Your task to perform on an android device: turn off notifications in google photos Image 0: 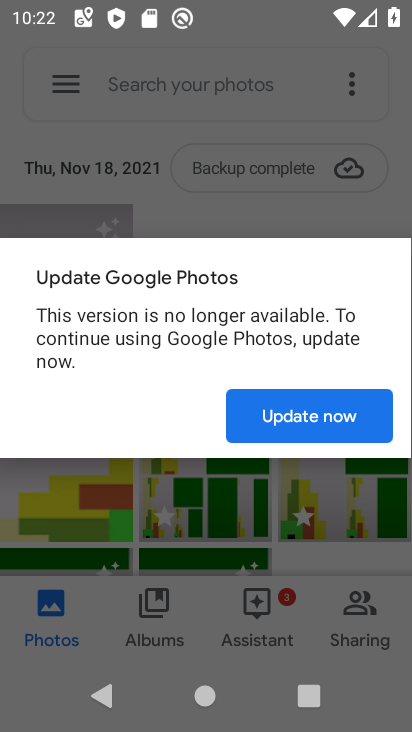
Step 0: press back button
Your task to perform on an android device: turn off notifications in google photos Image 1: 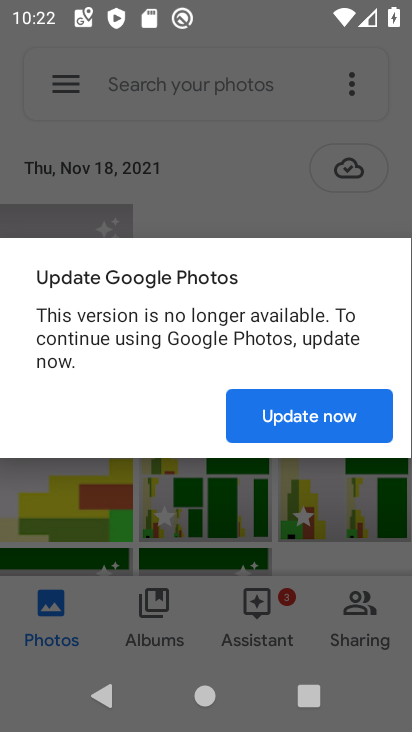
Step 1: press home button
Your task to perform on an android device: turn off notifications in google photos Image 2: 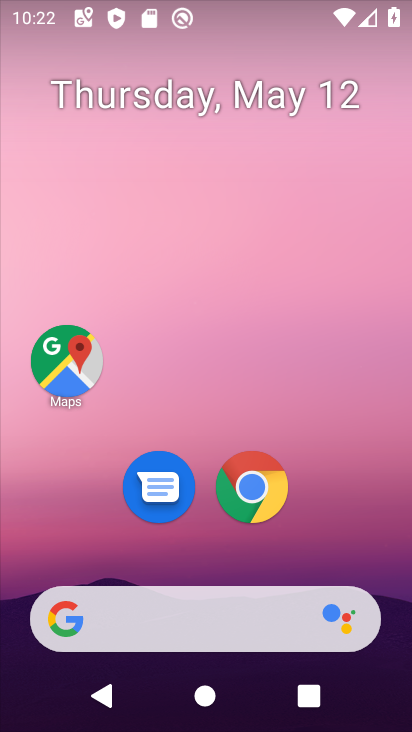
Step 2: drag from (63, 576) to (263, 257)
Your task to perform on an android device: turn off notifications in google photos Image 3: 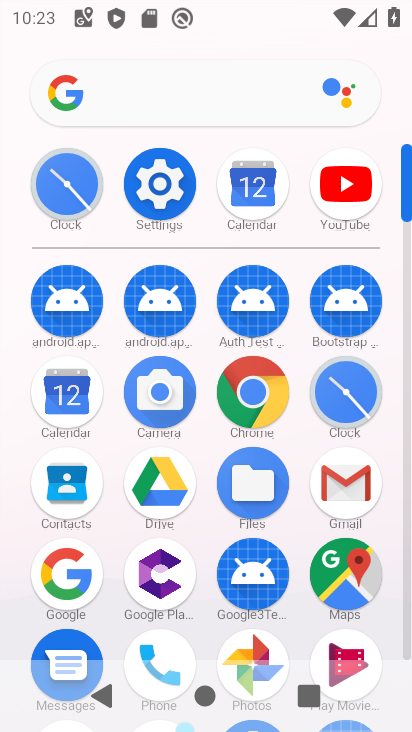
Step 3: click (173, 180)
Your task to perform on an android device: turn off notifications in google photos Image 4: 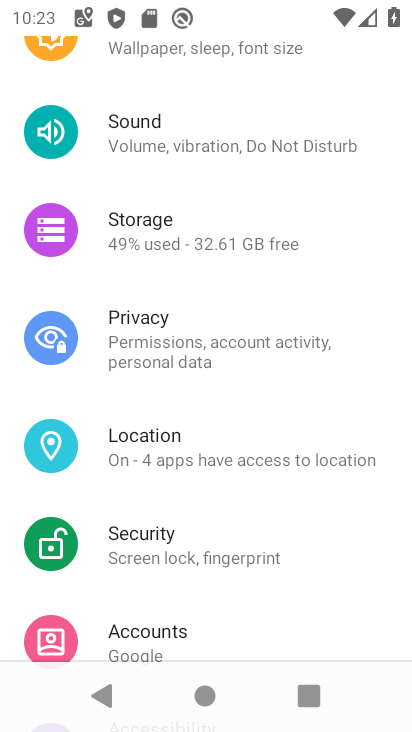
Step 4: press home button
Your task to perform on an android device: turn off notifications in google photos Image 5: 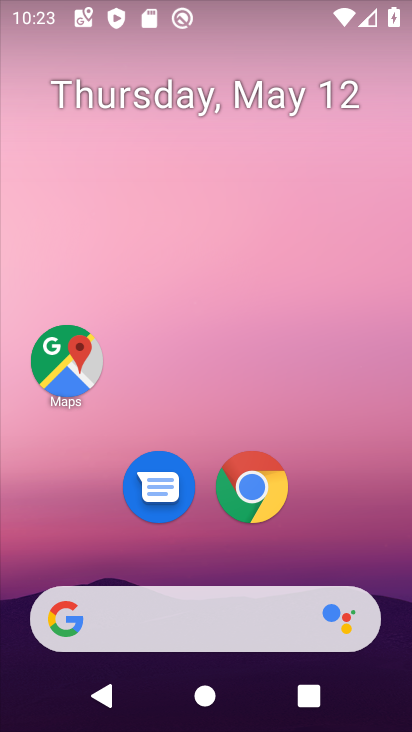
Step 5: drag from (54, 572) to (312, 90)
Your task to perform on an android device: turn off notifications in google photos Image 6: 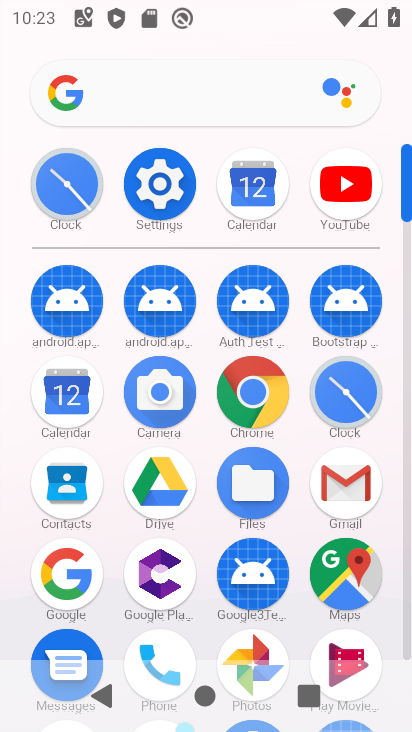
Step 6: click (252, 639)
Your task to perform on an android device: turn off notifications in google photos Image 7: 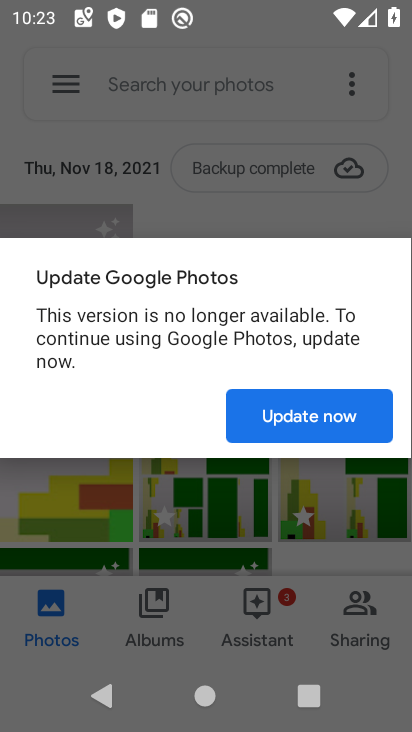
Step 7: click (309, 423)
Your task to perform on an android device: turn off notifications in google photos Image 8: 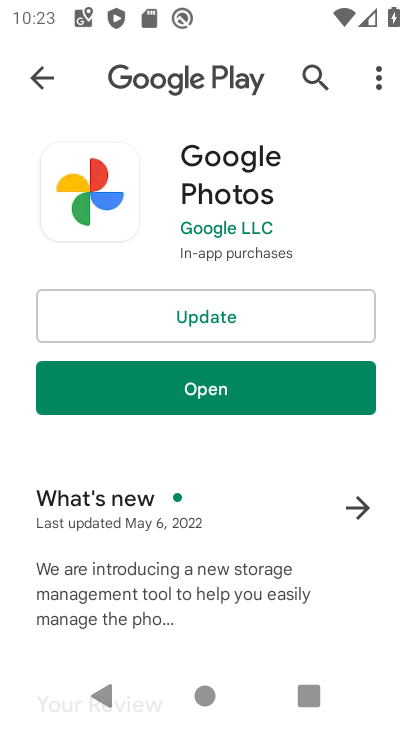
Step 8: click (276, 386)
Your task to perform on an android device: turn off notifications in google photos Image 9: 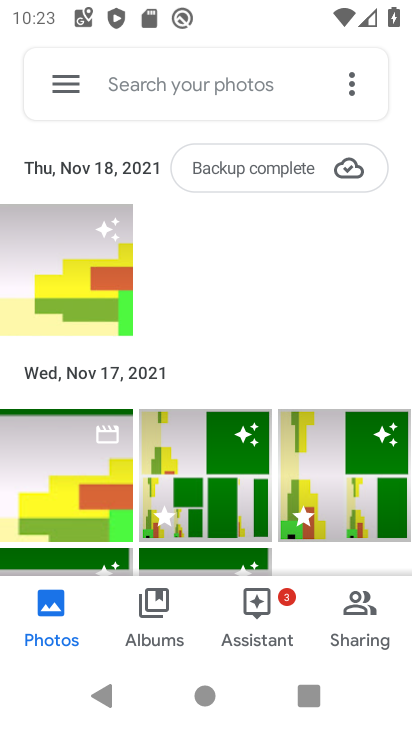
Step 9: click (77, 83)
Your task to perform on an android device: turn off notifications in google photos Image 10: 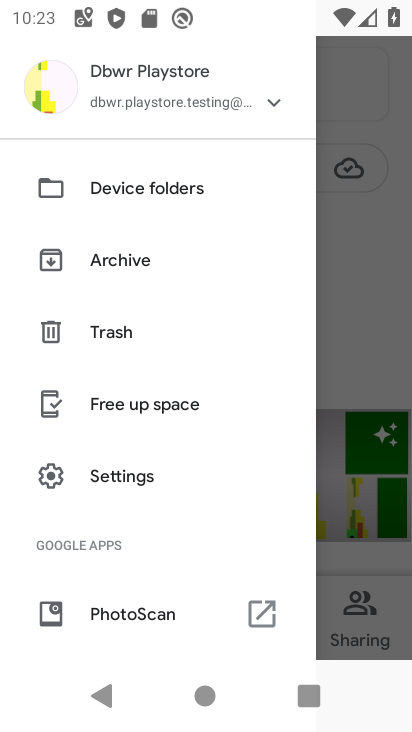
Step 10: drag from (85, 624) to (166, 262)
Your task to perform on an android device: turn off notifications in google photos Image 11: 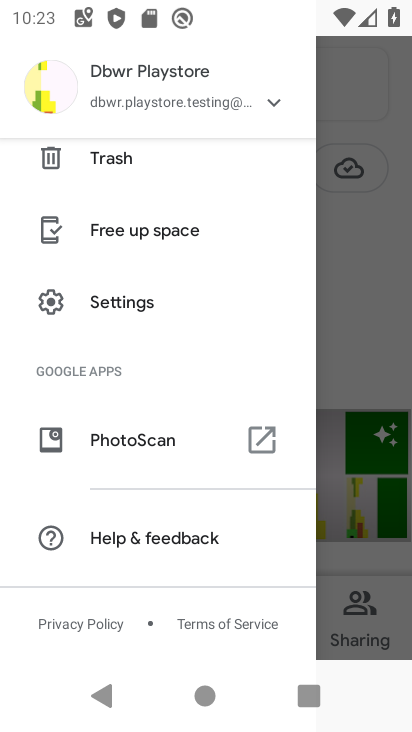
Step 11: click (148, 316)
Your task to perform on an android device: turn off notifications in google photos Image 12: 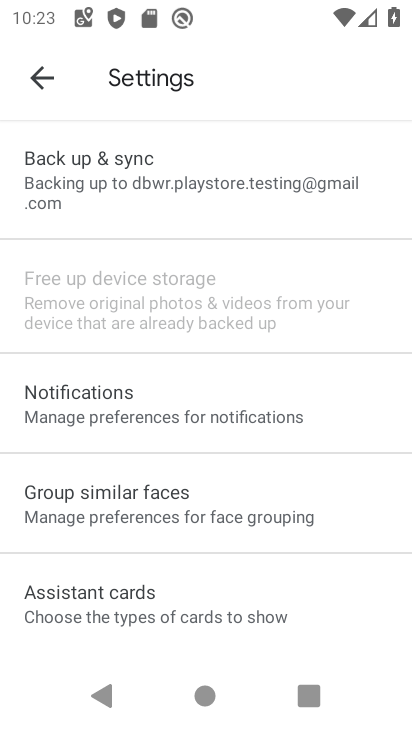
Step 12: click (148, 427)
Your task to perform on an android device: turn off notifications in google photos Image 13: 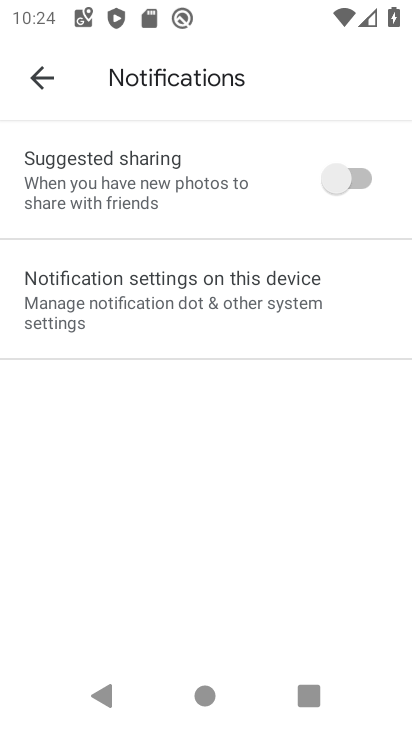
Step 13: click (318, 304)
Your task to perform on an android device: turn off notifications in google photos Image 14: 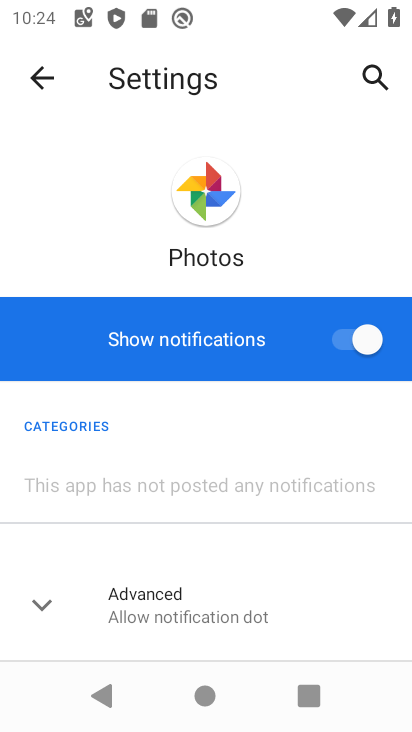
Step 14: click (367, 347)
Your task to perform on an android device: turn off notifications in google photos Image 15: 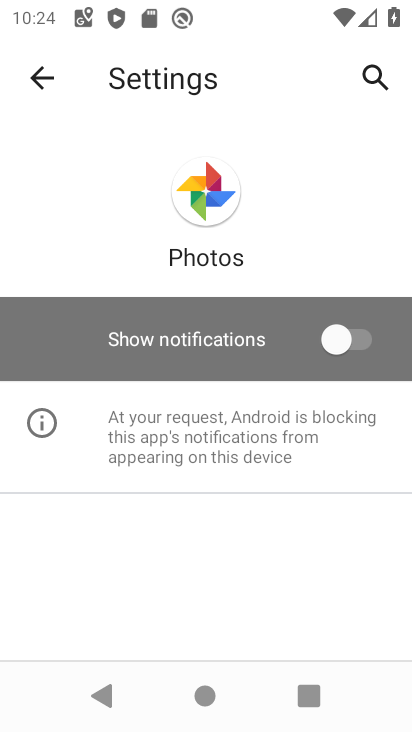
Step 15: task complete